Your task to perform on an android device: Open Google Chrome and click the shortcut for Amazon.com Image 0: 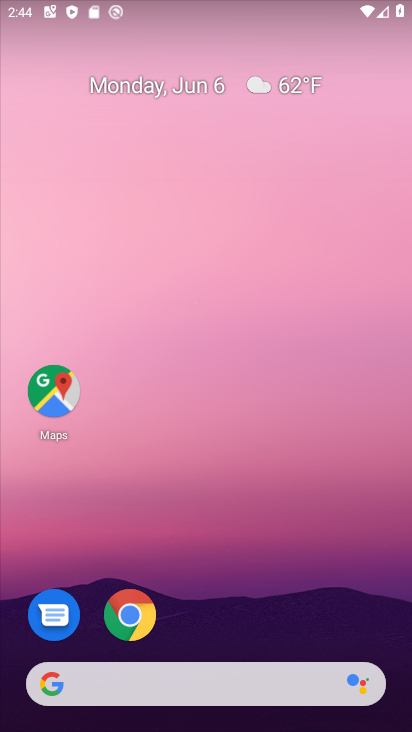
Step 0: drag from (187, 695) to (226, 50)
Your task to perform on an android device: Open Google Chrome and click the shortcut for Amazon.com Image 1: 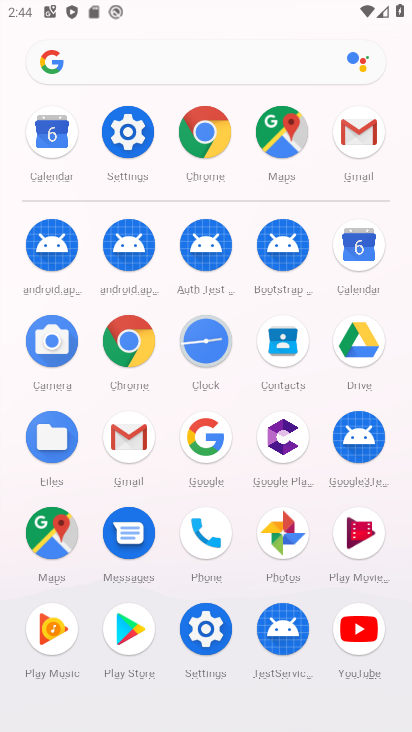
Step 1: click (129, 350)
Your task to perform on an android device: Open Google Chrome and click the shortcut for Amazon.com Image 2: 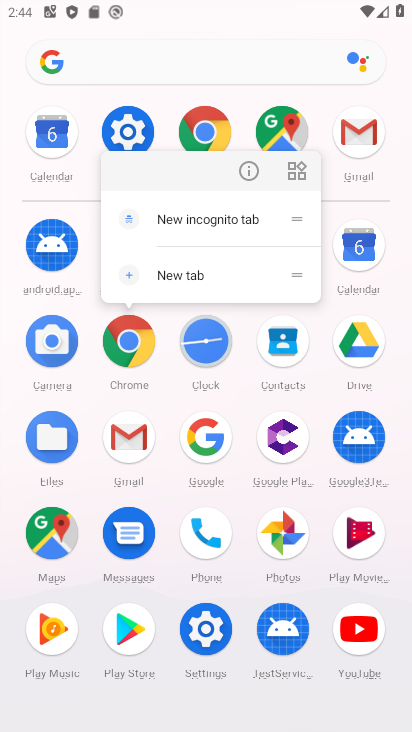
Step 2: click (129, 350)
Your task to perform on an android device: Open Google Chrome and click the shortcut for Amazon.com Image 3: 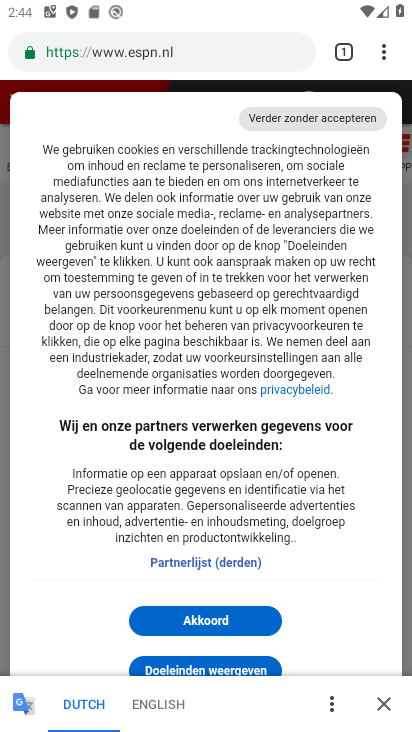
Step 3: drag from (380, 49) to (220, 99)
Your task to perform on an android device: Open Google Chrome and click the shortcut for Amazon.com Image 4: 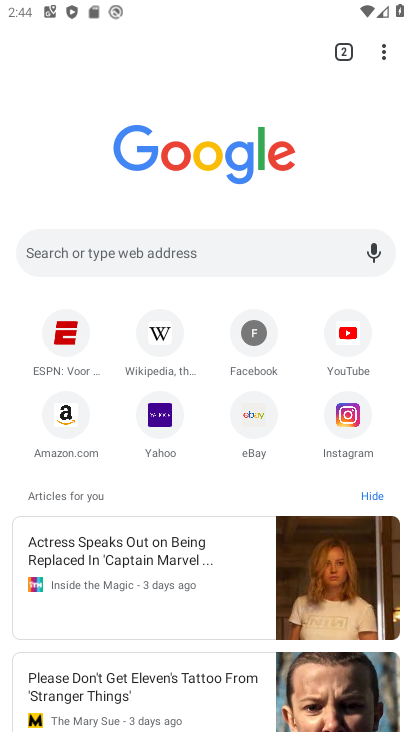
Step 4: click (71, 420)
Your task to perform on an android device: Open Google Chrome and click the shortcut for Amazon.com Image 5: 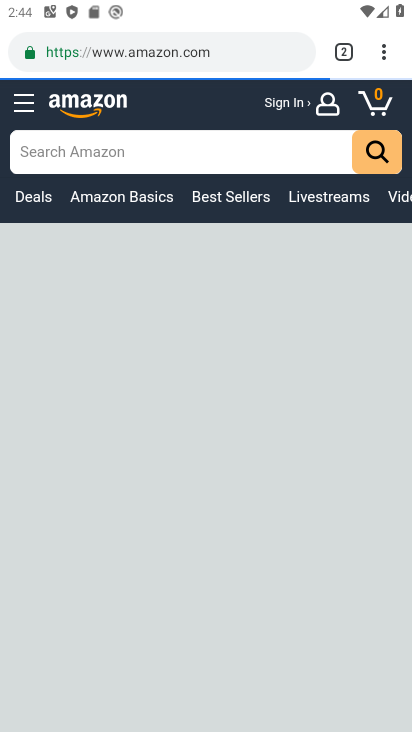
Step 5: drag from (390, 51) to (246, 494)
Your task to perform on an android device: Open Google Chrome and click the shortcut for Amazon.com Image 6: 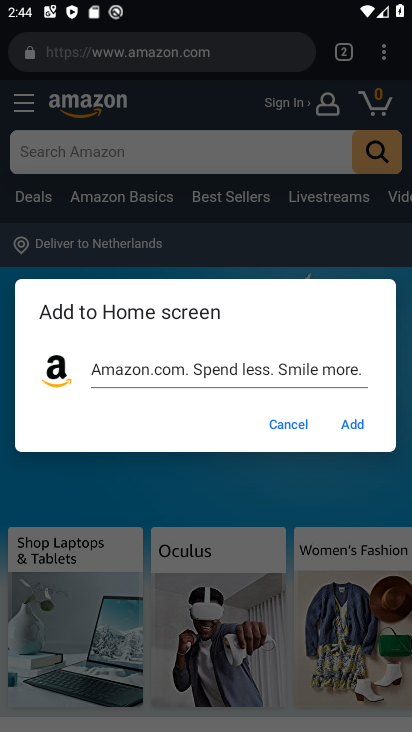
Step 6: click (353, 422)
Your task to perform on an android device: Open Google Chrome and click the shortcut for Amazon.com Image 7: 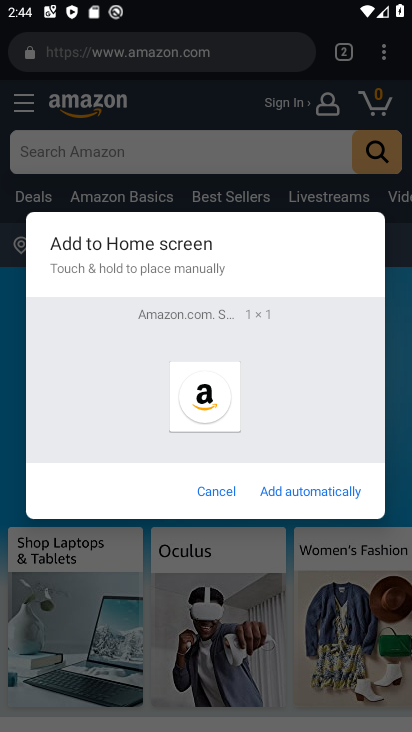
Step 7: task complete